Your task to perform on an android device: manage bookmarks in the chrome app Image 0: 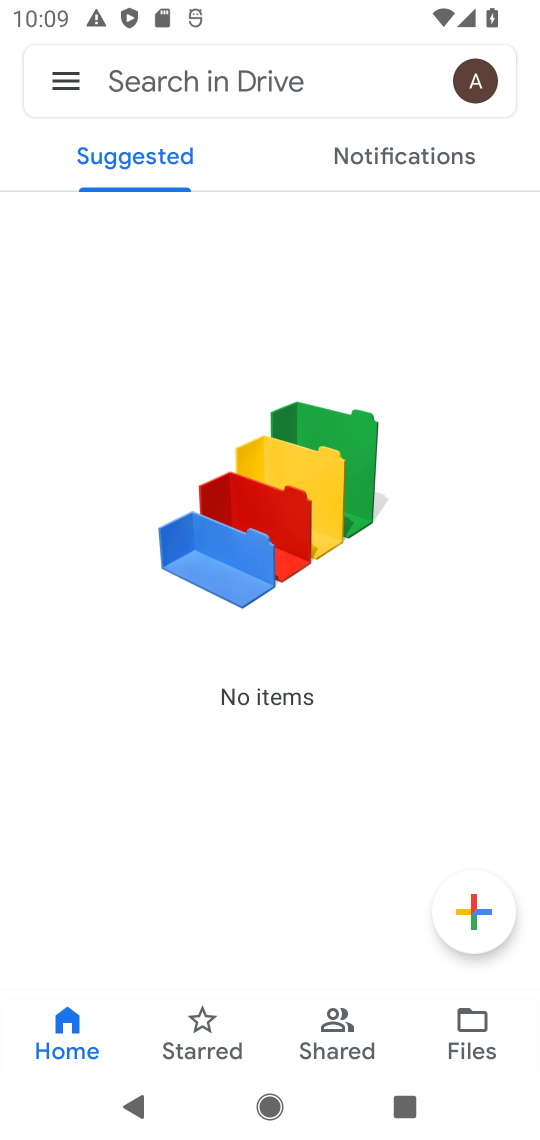
Step 0: press home button
Your task to perform on an android device: manage bookmarks in the chrome app Image 1: 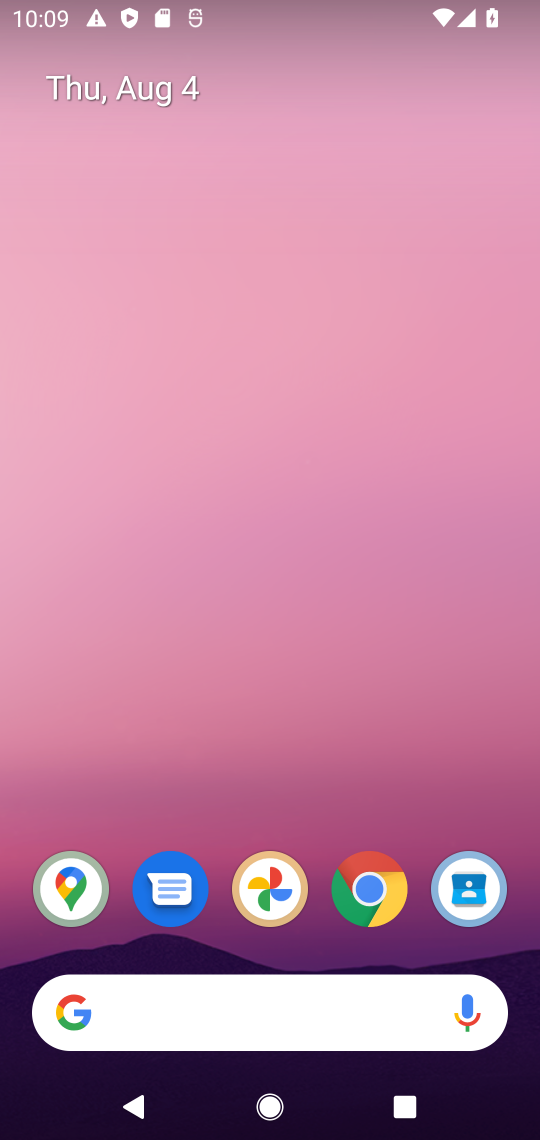
Step 1: drag from (435, 773) to (447, 317)
Your task to perform on an android device: manage bookmarks in the chrome app Image 2: 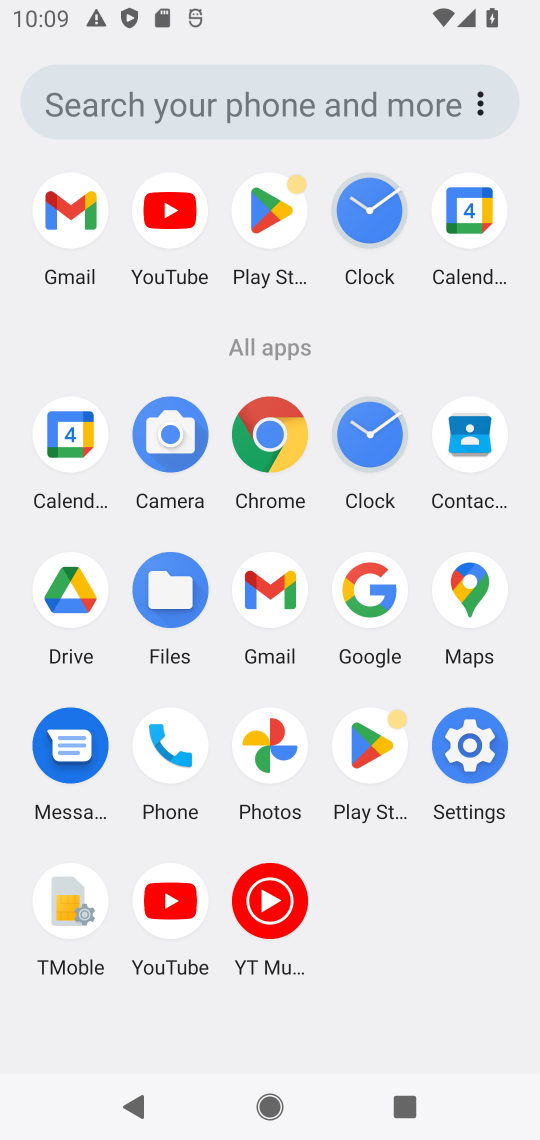
Step 2: click (274, 433)
Your task to perform on an android device: manage bookmarks in the chrome app Image 3: 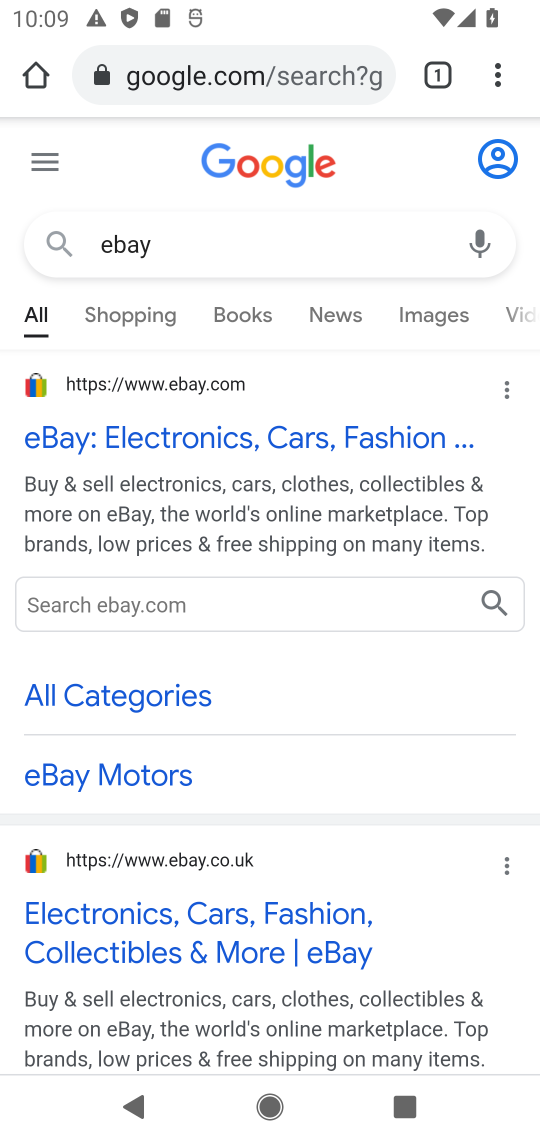
Step 3: click (496, 83)
Your task to perform on an android device: manage bookmarks in the chrome app Image 4: 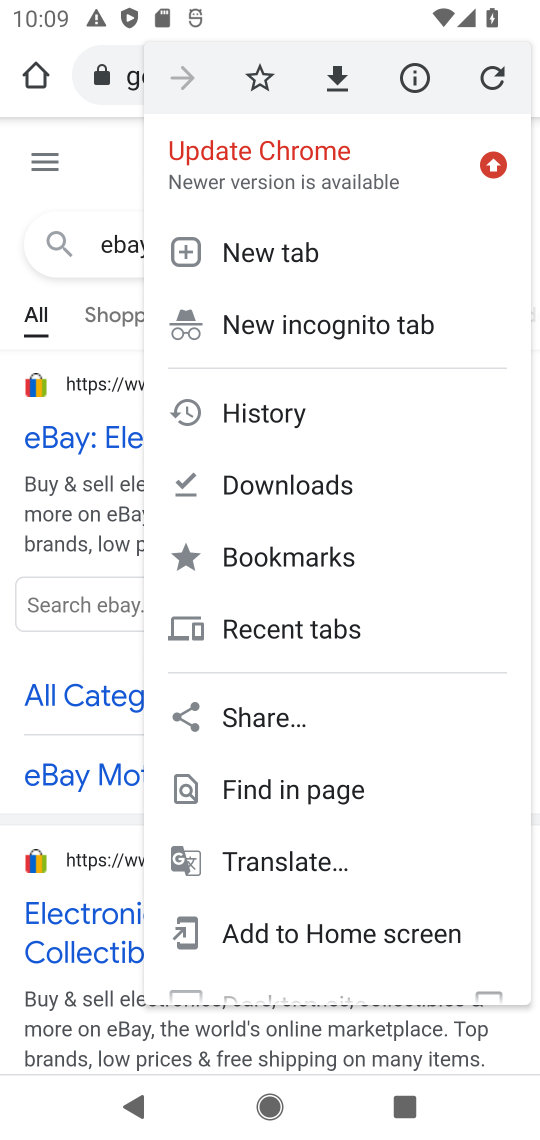
Step 4: click (335, 552)
Your task to perform on an android device: manage bookmarks in the chrome app Image 5: 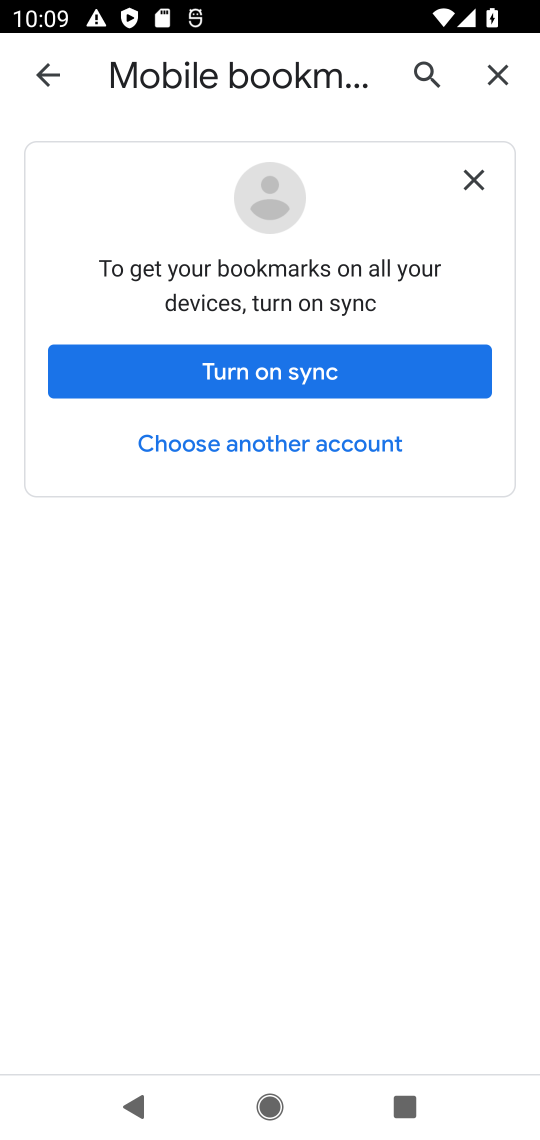
Step 5: click (472, 174)
Your task to perform on an android device: manage bookmarks in the chrome app Image 6: 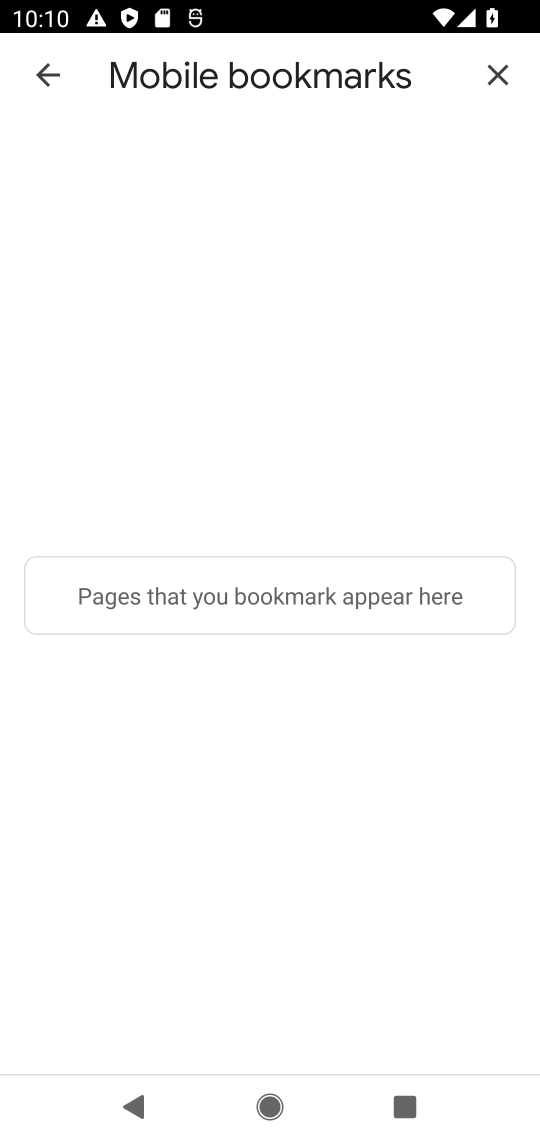
Step 6: task complete